Your task to perform on an android device: Turn off the flashlight Image 0: 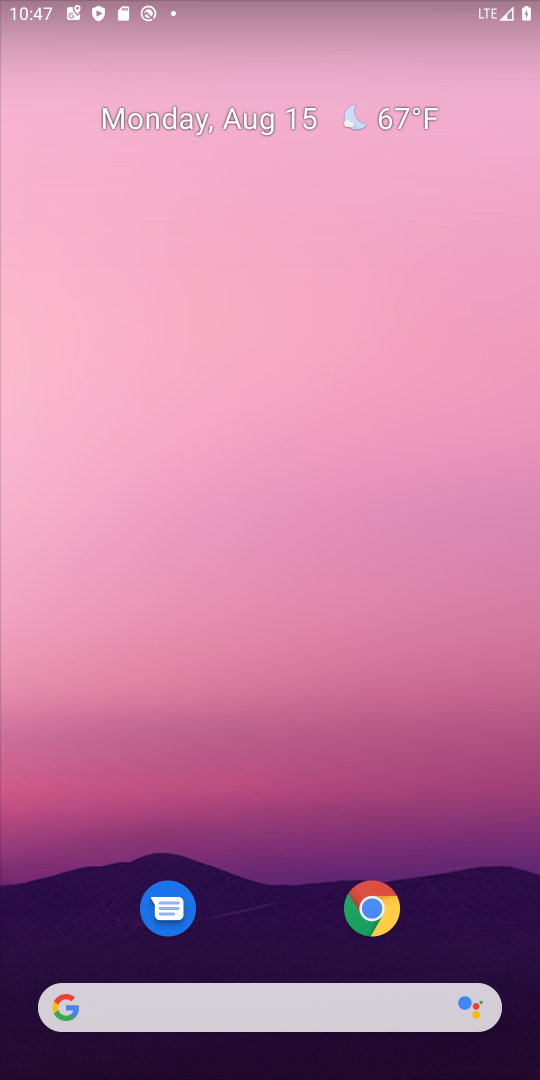
Step 0: click (224, 134)
Your task to perform on an android device: Turn off the flashlight Image 1: 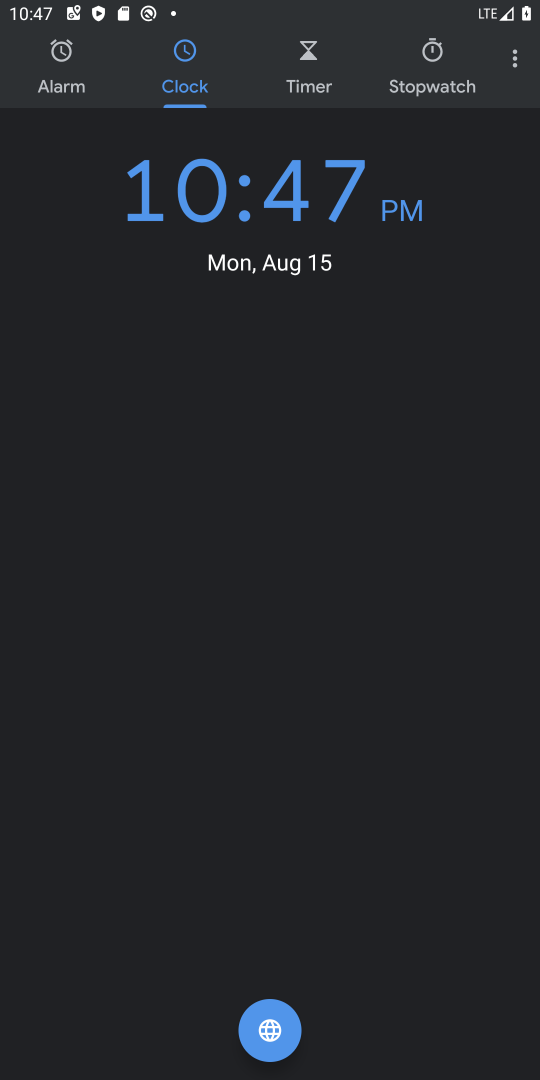
Step 1: press home button
Your task to perform on an android device: Turn off the flashlight Image 2: 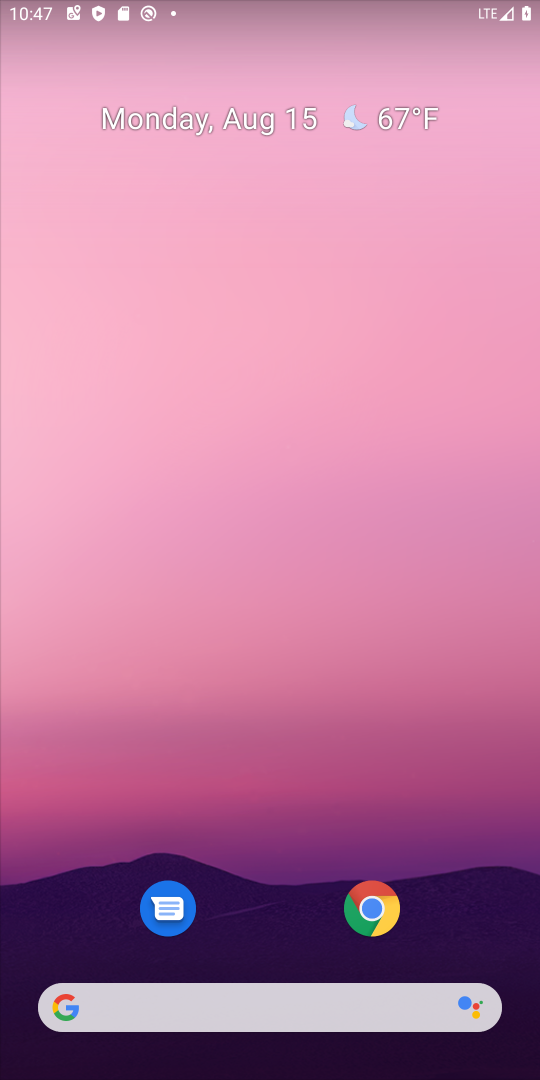
Step 2: drag from (247, 889) to (279, 214)
Your task to perform on an android device: Turn off the flashlight Image 3: 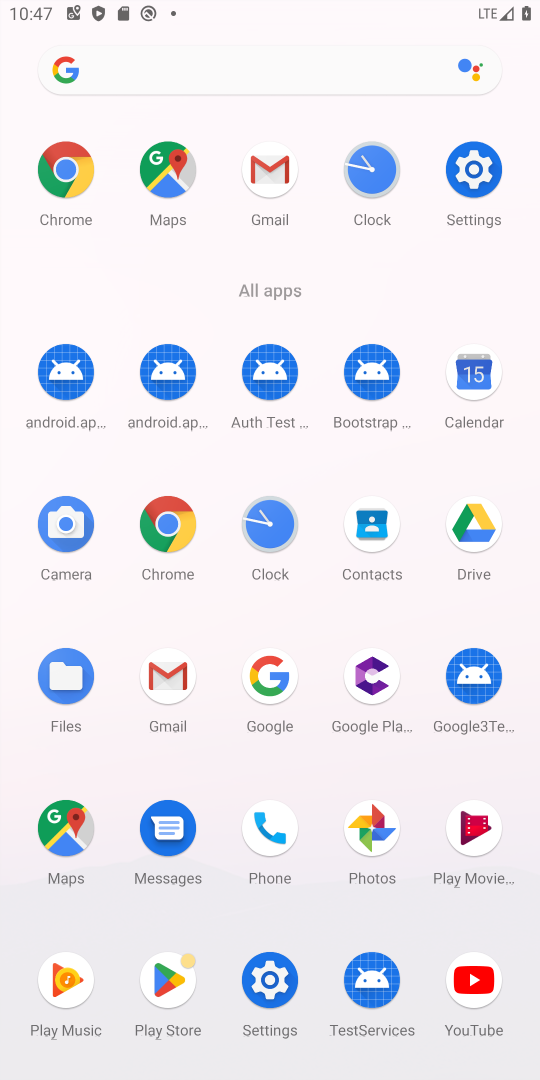
Step 3: click (474, 162)
Your task to perform on an android device: Turn off the flashlight Image 4: 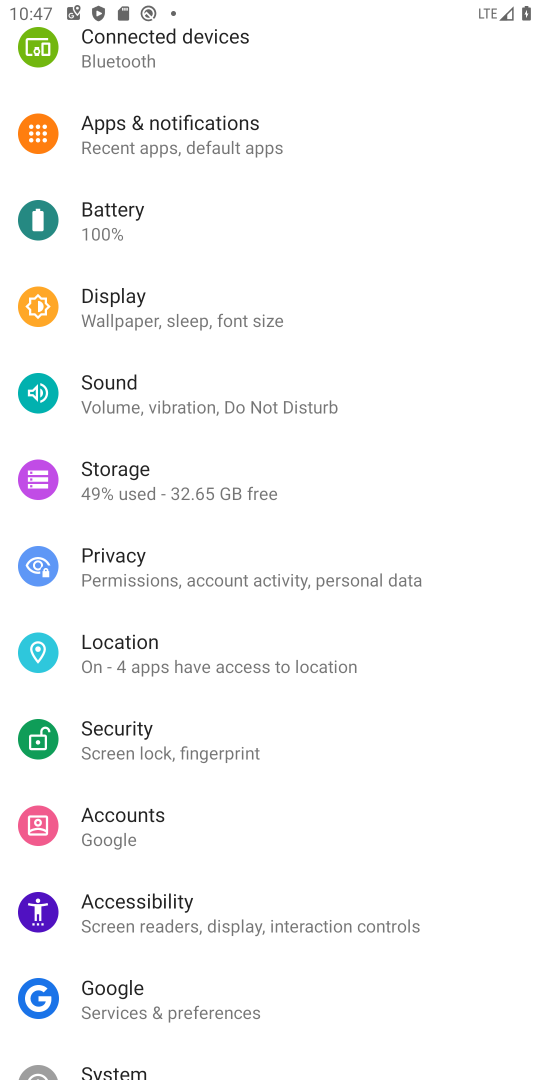
Step 4: task complete